Your task to perform on an android device: Play the last video I watched on Youtube Image 0: 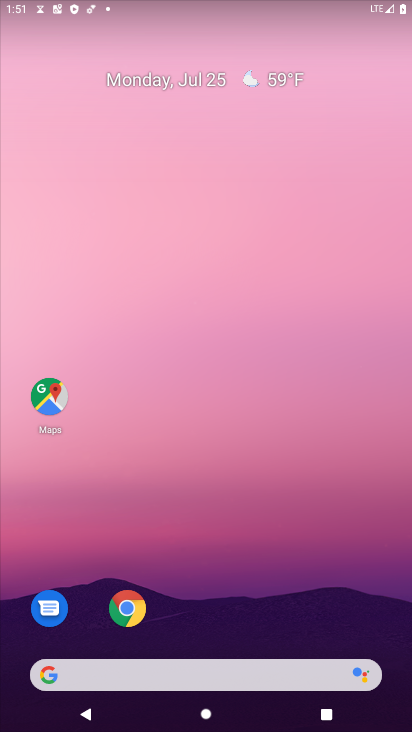
Step 0: drag from (303, 572) to (365, 110)
Your task to perform on an android device: Play the last video I watched on Youtube Image 1: 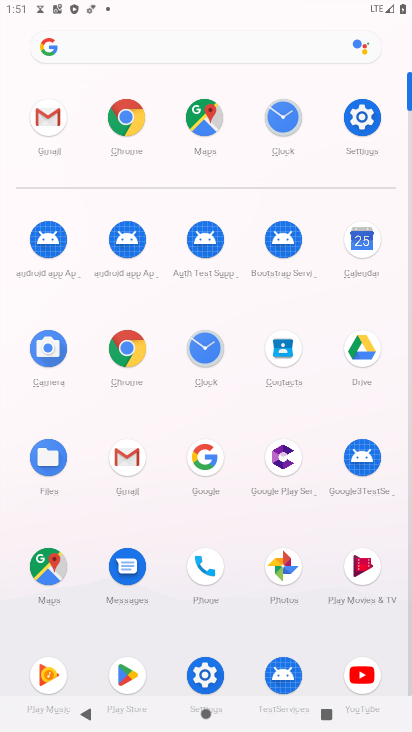
Step 1: click (354, 668)
Your task to perform on an android device: Play the last video I watched on Youtube Image 2: 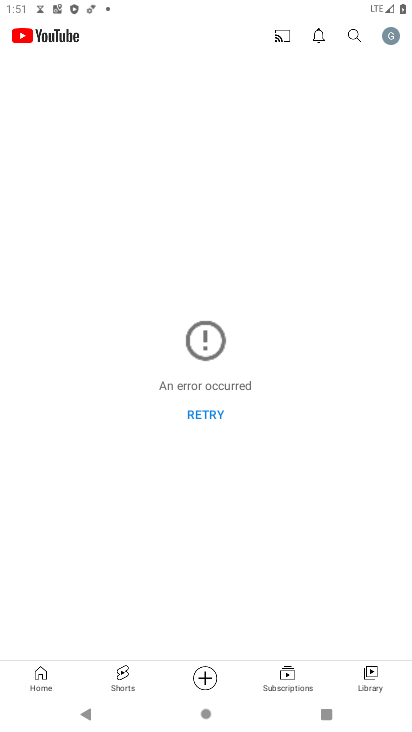
Step 2: click (370, 672)
Your task to perform on an android device: Play the last video I watched on Youtube Image 3: 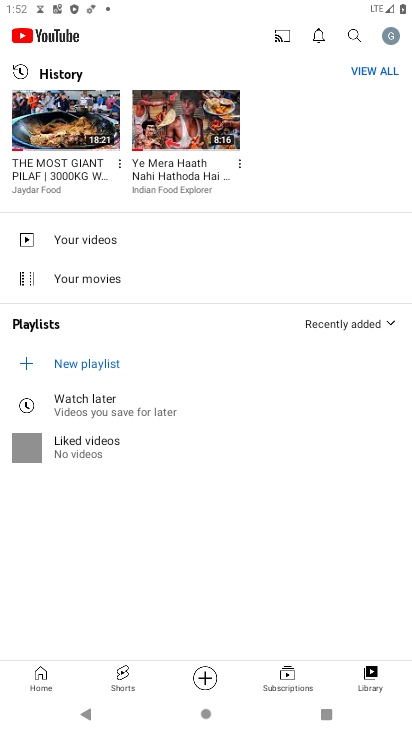
Step 3: click (78, 138)
Your task to perform on an android device: Play the last video I watched on Youtube Image 4: 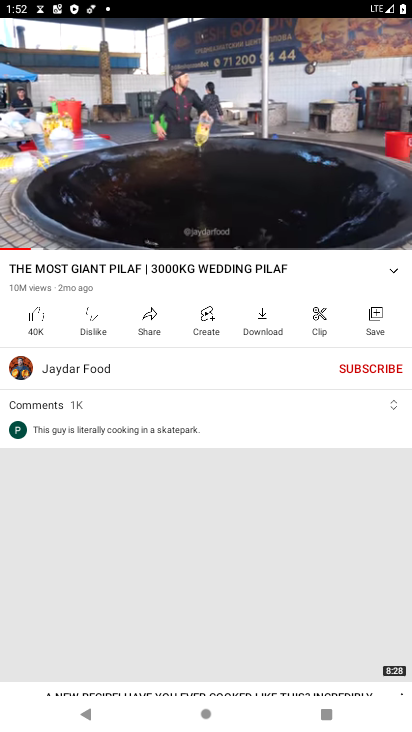
Step 4: task complete